Your task to perform on an android device: all mails in gmail Image 0: 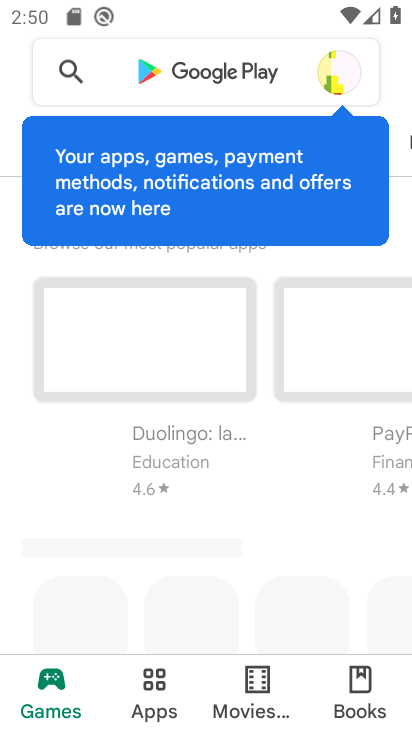
Step 0: press home button
Your task to perform on an android device: all mails in gmail Image 1: 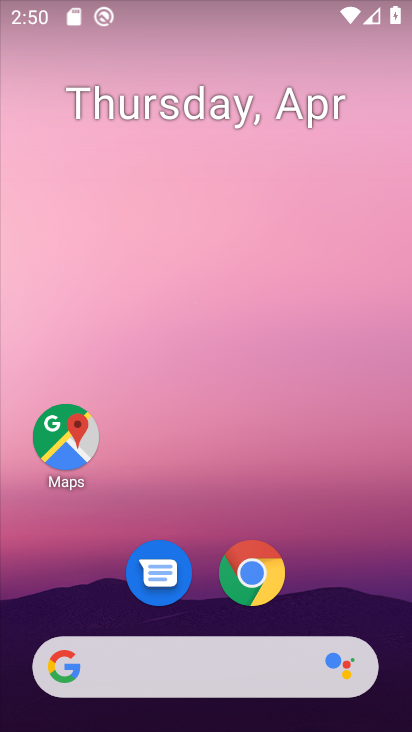
Step 1: drag from (344, 586) to (315, 195)
Your task to perform on an android device: all mails in gmail Image 2: 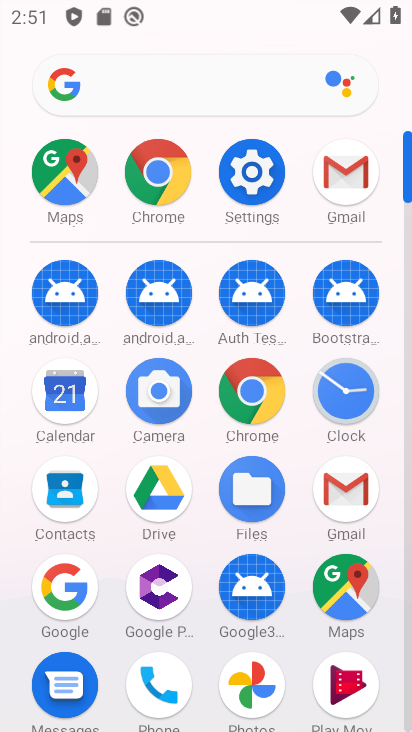
Step 2: click (355, 479)
Your task to perform on an android device: all mails in gmail Image 3: 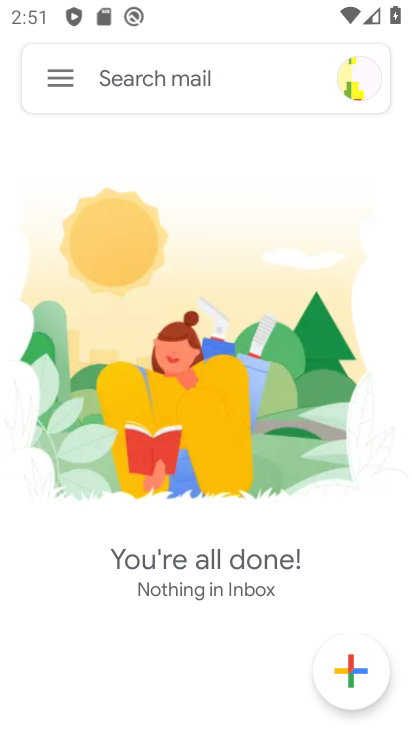
Step 3: click (63, 71)
Your task to perform on an android device: all mails in gmail Image 4: 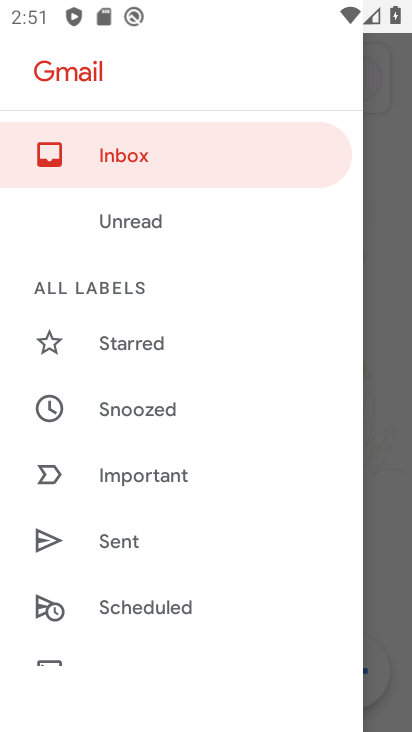
Step 4: drag from (200, 618) to (199, 248)
Your task to perform on an android device: all mails in gmail Image 5: 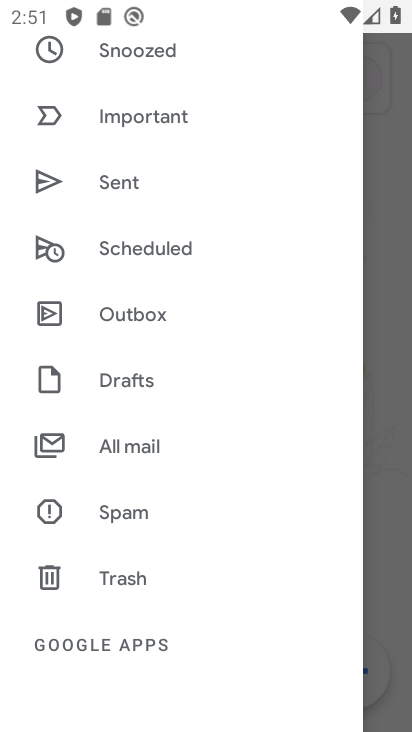
Step 5: click (174, 434)
Your task to perform on an android device: all mails in gmail Image 6: 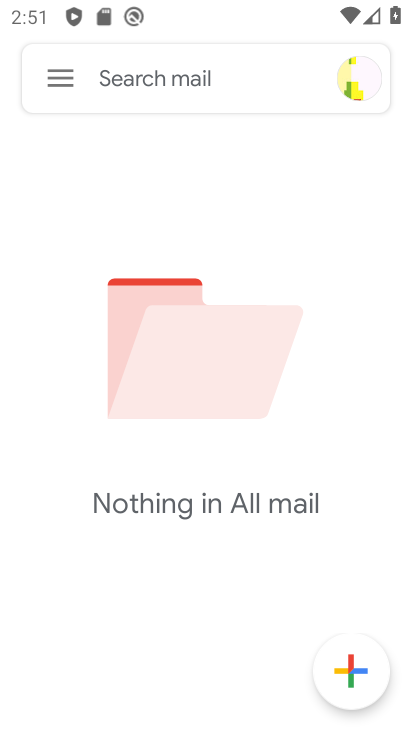
Step 6: task complete